Your task to perform on an android device: Go to sound settings Image 0: 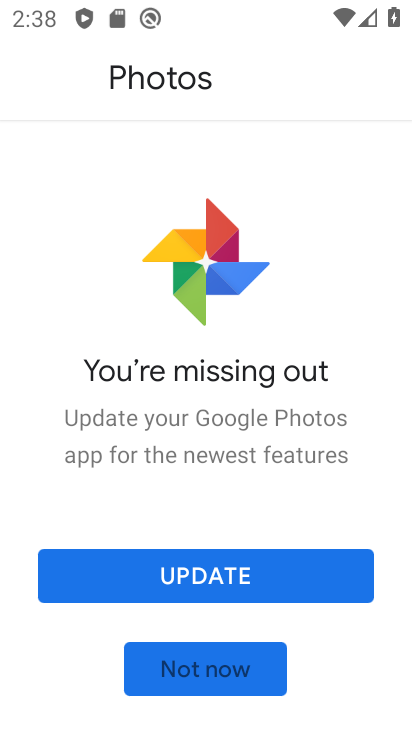
Step 0: press home button
Your task to perform on an android device: Go to sound settings Image 1: 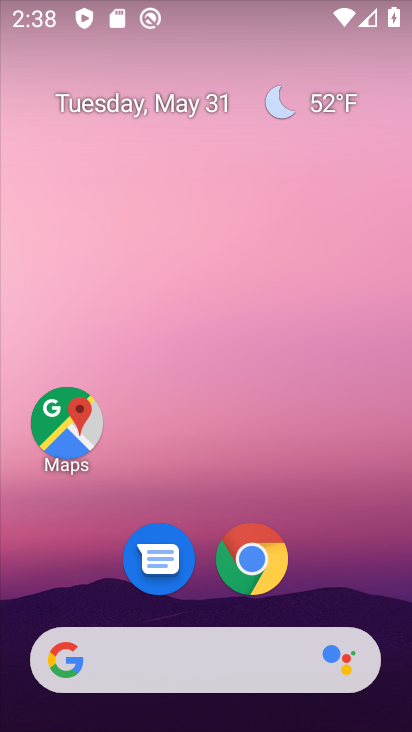
Step 1: drag from (197, 597) to (205, 174)
Your task to perform on an android device: Go to sound settings Image 2: 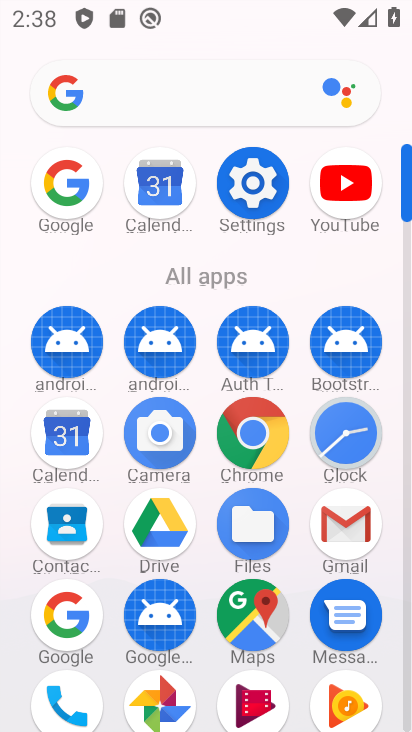
Step 2: click (233, 179)
Your task to perform on an android device: Go to sound settings Image 3: 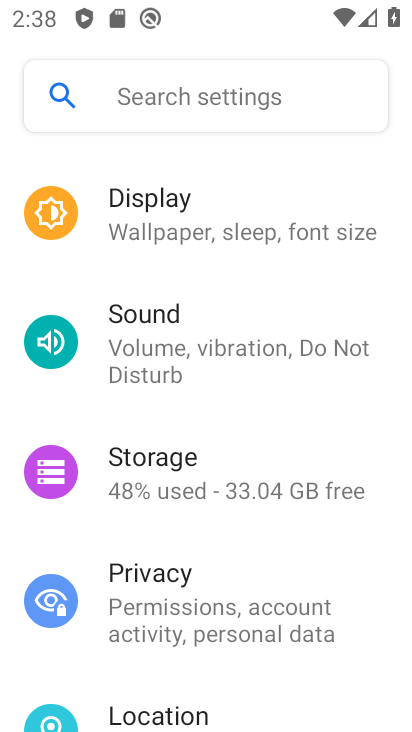
Step 3: click (233, 179)
Your task to perform on an android device: Go to sound settings Image 4: 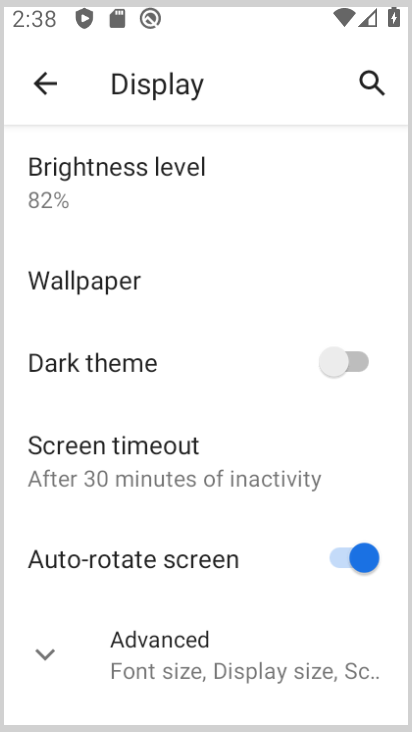
Step 4: drag from (227, 372) to (230, 281)
Your task to perform on an android device: Go to sound settings Image 5: 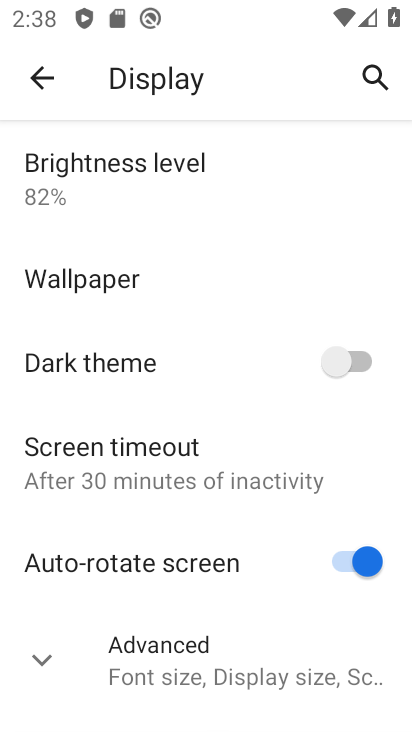
Step 5: click (41, 71)
Your task to perform on an android device: Go to sound settings Image 6: 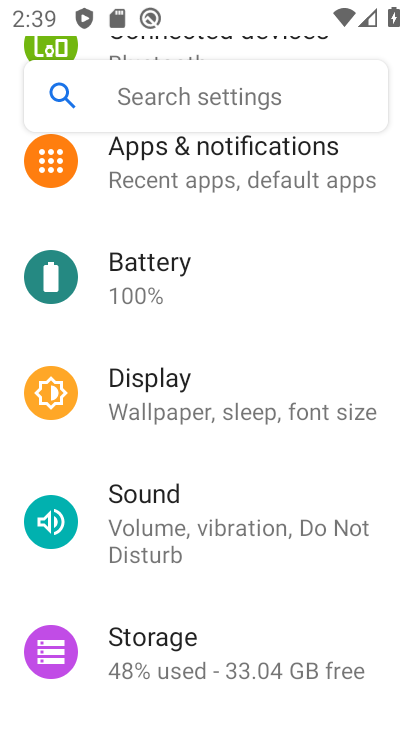
Step 6: click (178, 519)
Your task to perform on an android device: Go to sound settings Image 7: 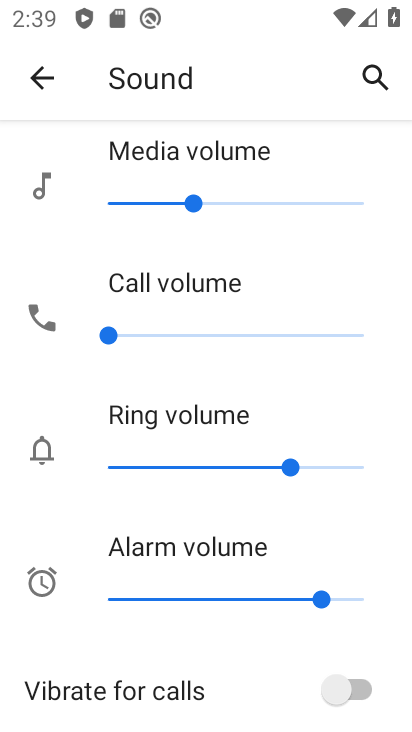
Step 7: task complete